Your task to perform on an android device: change the clock display to digital Image 0: 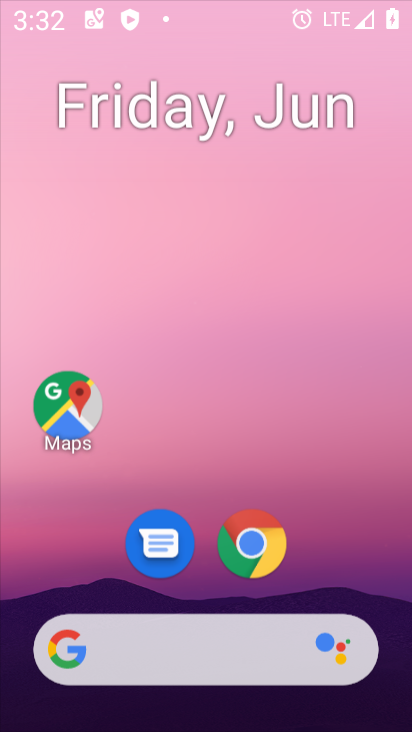
Step 0: click (340, 1)
Your task to perform on an android device: change the clock display to digital Image 1: 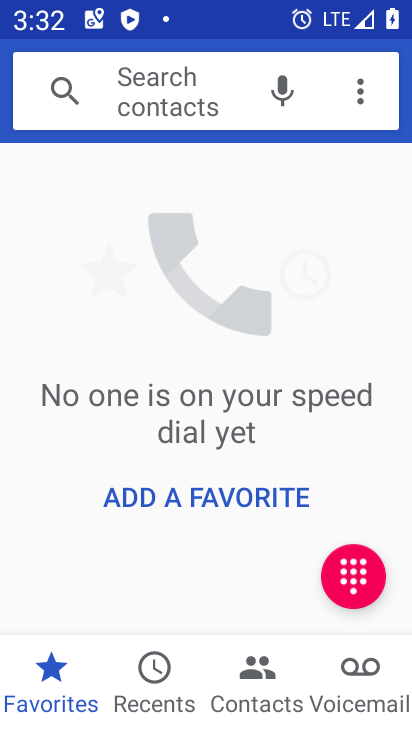
Step 1: press home button
Your task to perform on an android device: change the clock display to digital Image 2: 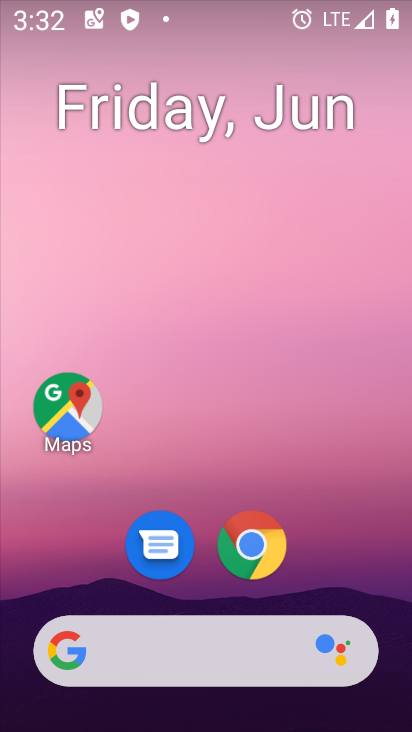
Step 2: drag from (314, 564) to (351, 34)
Your task to perform on an android device: change the clock display to digital Image 3: 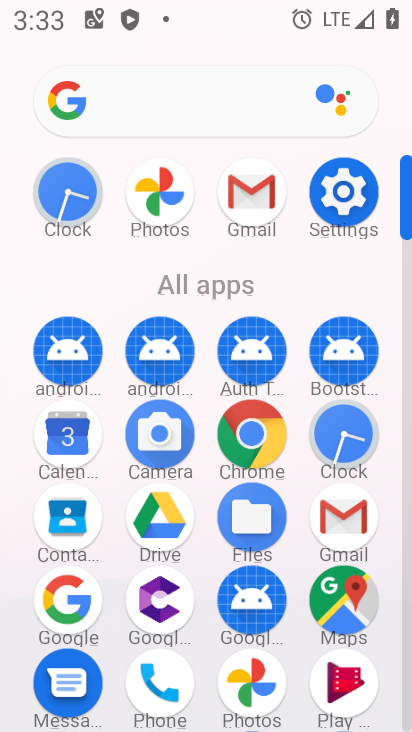
Step 3: click (343, 432)
Your task to perform on an android device: change the clock display to digital Image 4: 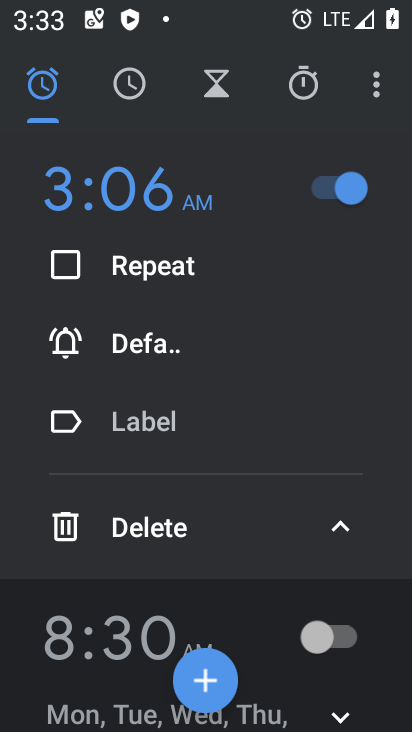
Step 4: click (385, 95)
Your task to perform on an android device: change the clock display to digital Image 5: 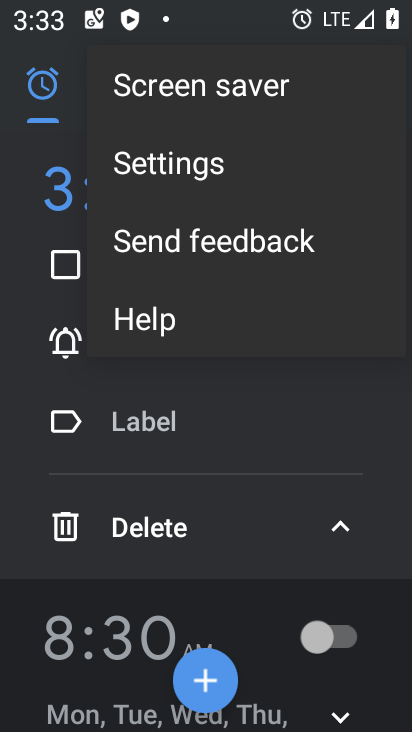
Step 5: click (183, 186)
Your task to perform on an android device: change the clock display to digital Image 6: 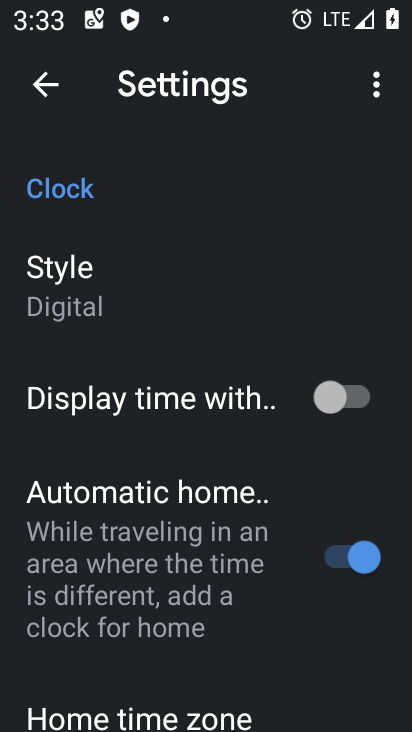
Step 6: click (66, 308)
Your task to perform on an android device: change the clock display to digital Image 7: 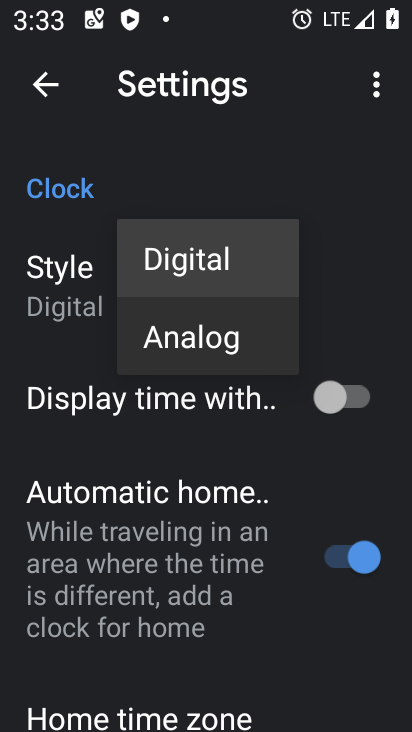
Step 7: click (204, 278)
Your task to perform on an android device: change the clock display to digital Image 8: 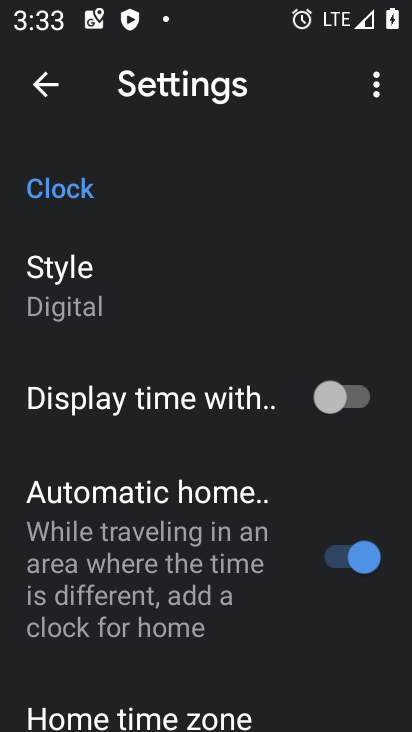
Step 8: task complete